Your task to perform on an android device: toggle translation in the chrome app Image 0: 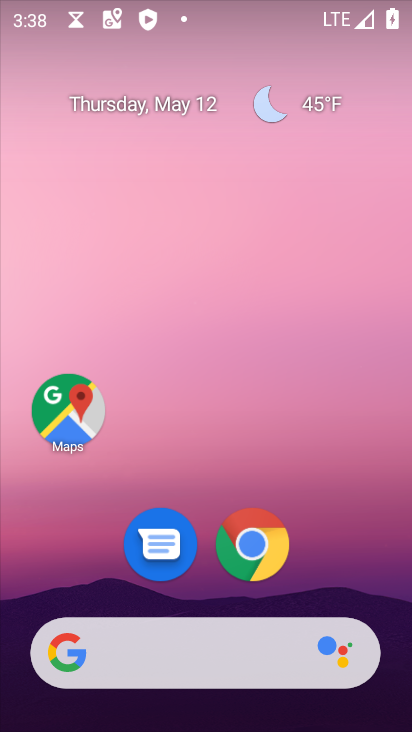
Step 0: click (253, 545)
Your task to perform on an android device: toggle translation in the chrome app Image 1: 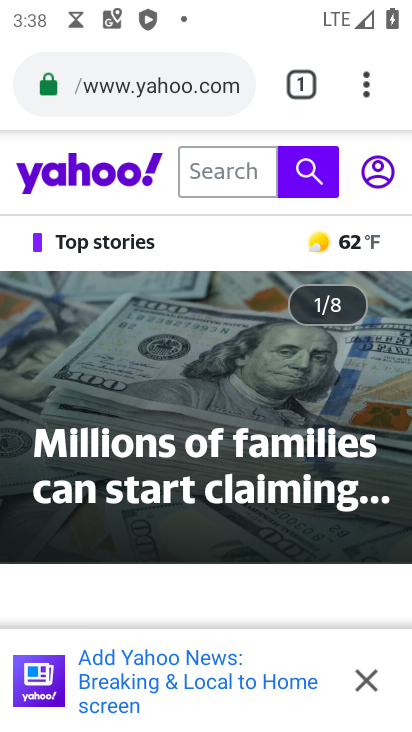
Step 1: click (364, 93)
Your task to perform on an android device: toggle translation in the chrome app Image 2: 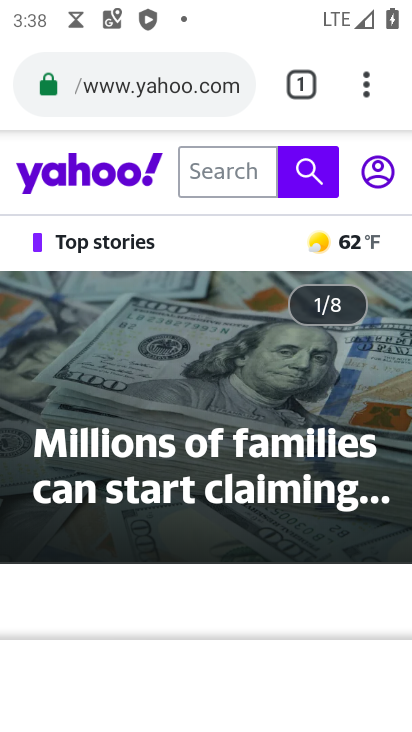
Step 2: click (374, 93)
Your task to perform on an android device: toggle translation in the chrome app Image 3: 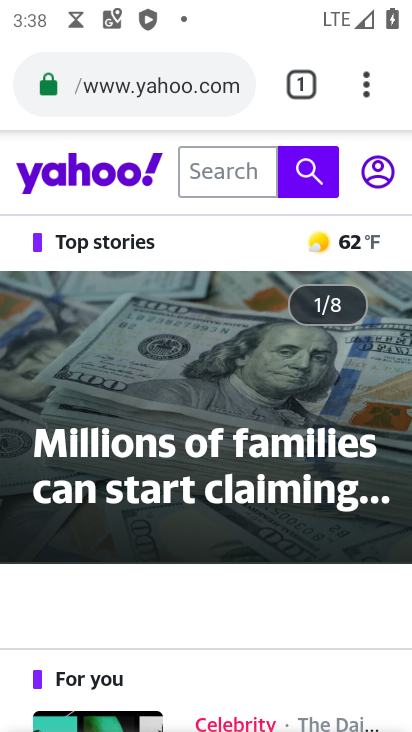
Step 3: click (370, 90)
Your task to perform on an android device: toggle translation in the chrome app Image 4: 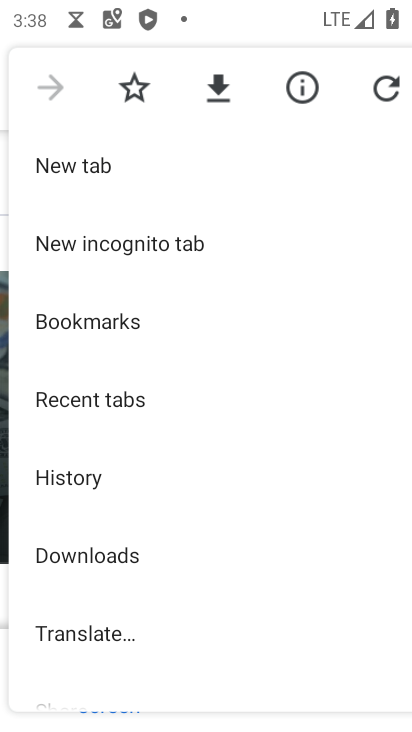
Step 4: drag from (154, 596) to (161, 212)
Your task to perform on an android device: toggle translation in the chrome app Image 5: 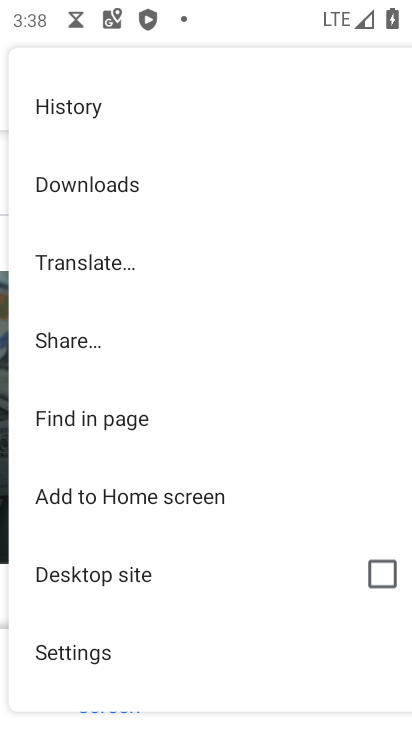
Step 5: click (135, 651)
Your task to perform on an android device: toggle translation in the chrome app Image 6: 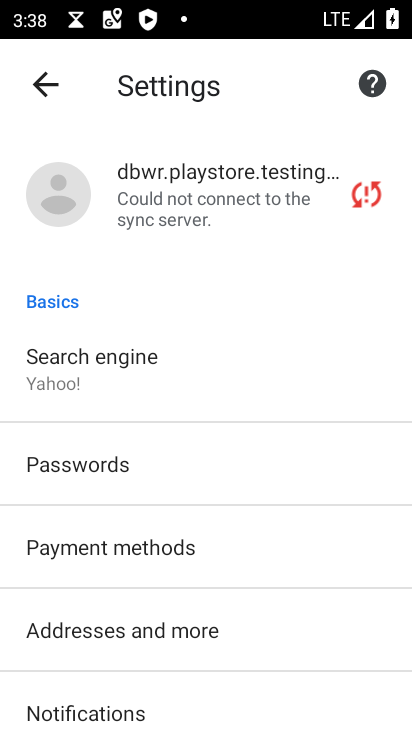
Step 6: drag from (161, 684) to (176, 385)
Your task to perform on an android device: toggle translation in the chrome app Image 7: 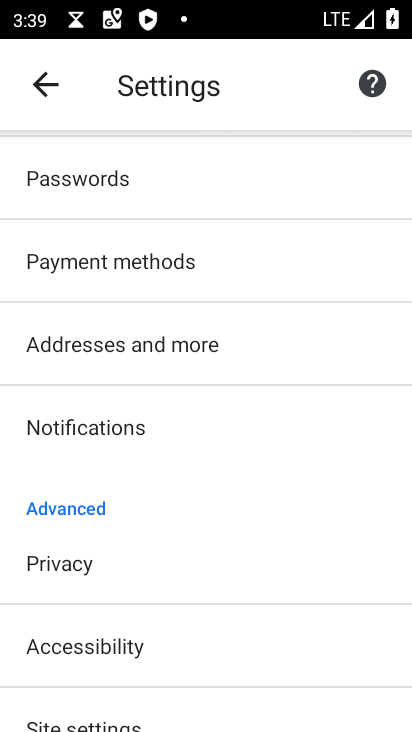
Step 7: drag from (145, 658) to (152, 437)
Your task to perform on an android device: toggle translation in the chrome app Image 8: 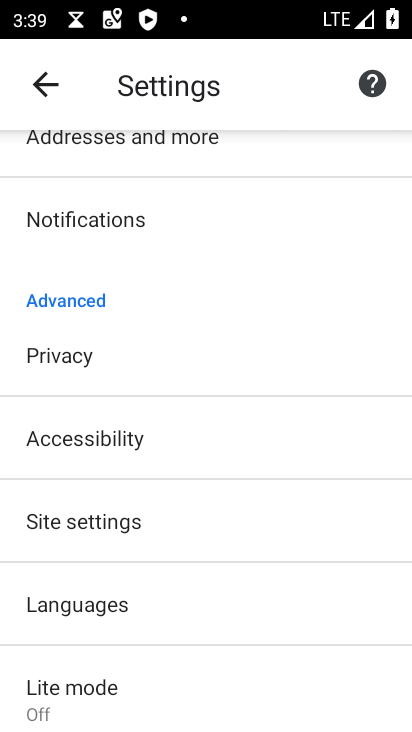
Step 8: click (180, 595)
Your task to perform on an android device: toggle translation in the chrome app Image 9: 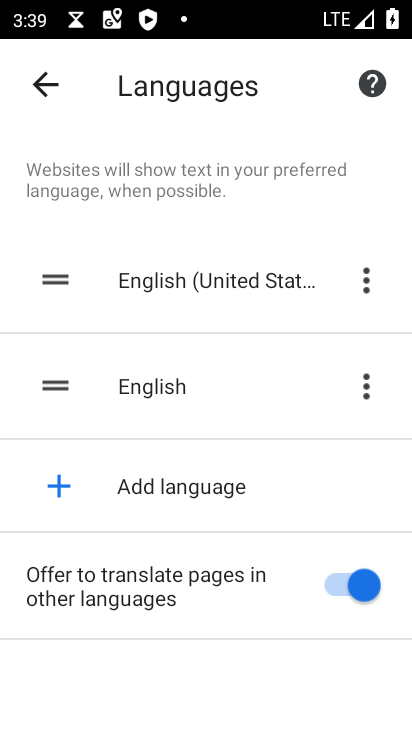
Step 9: click (347, 594)
Your task to perform on an android device: toggle translation in the chrome app Image 10: 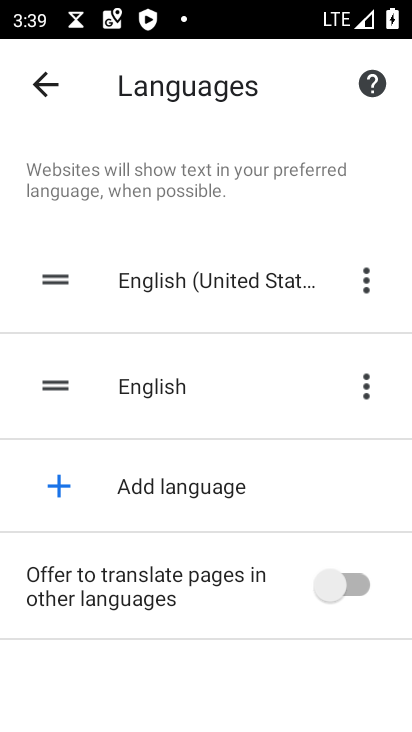
Step 10: task complete